Your task to perform on an android device: Open Google Image 0: 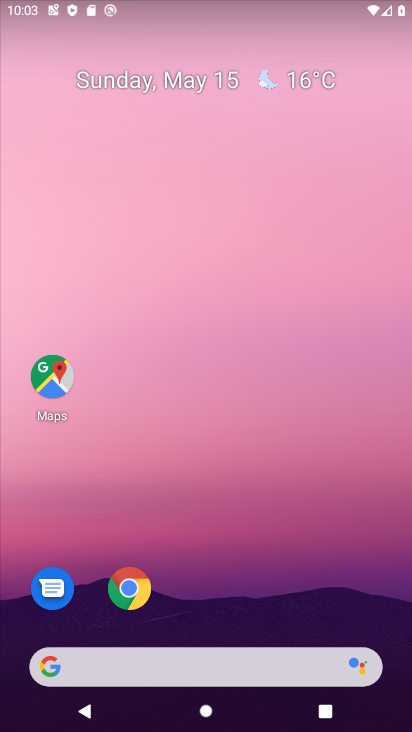
Step 0: click (162, 661)
Your task to perform on an android device: Open Google Image 1: 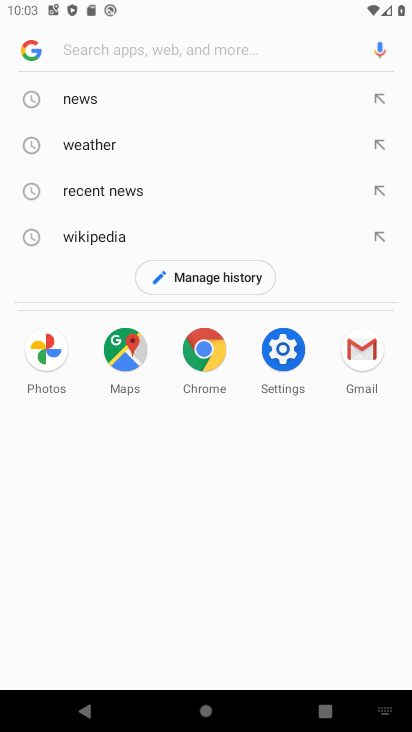
Step 1: type "google"
Your task to perform on an android device: Open Google Image 2: 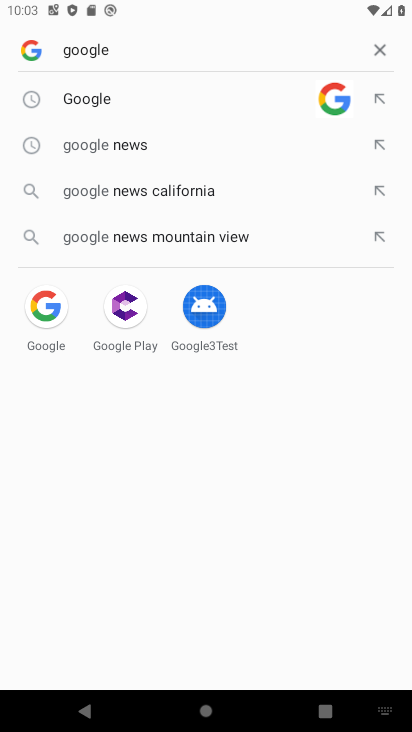
Step 2: click (341, 96)
Your task to perform on an android device: Open Google Image 3: 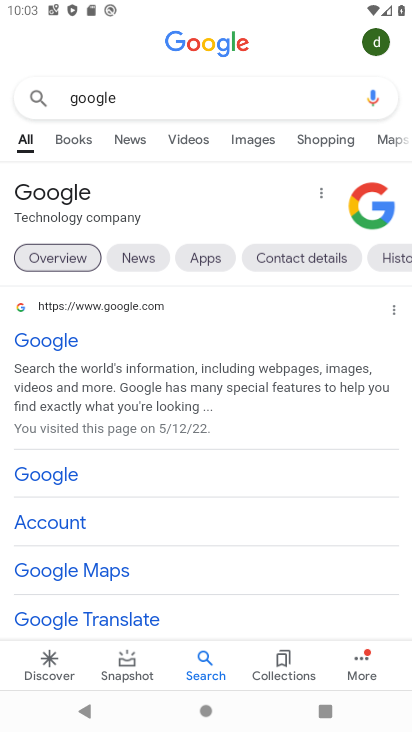
Step 3: click (52, 344)
Your task to perform on an android device: Open Google Image 4: 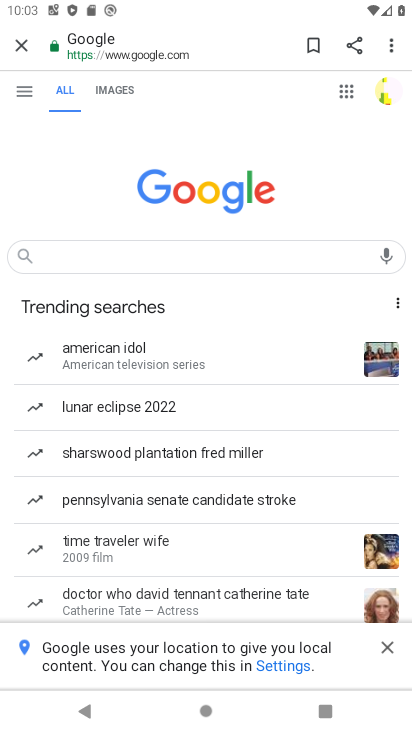
Step 4: task complete